Your task to perform on an android device: Go to Wikipedia Image 0: 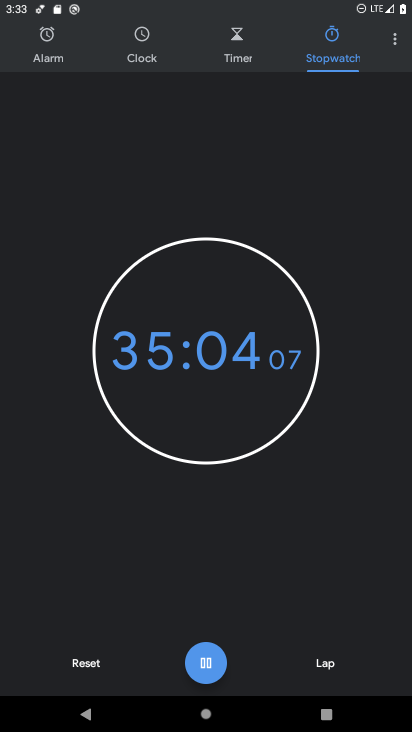
Step 0: press home button
Your task to perform on an android device: Go to Wikipedia Image 1: 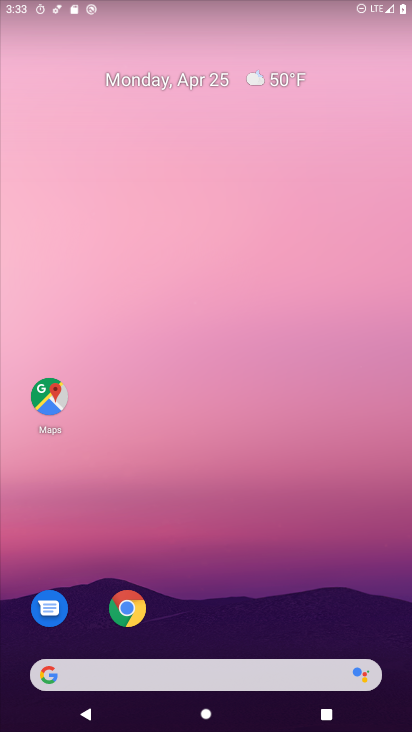
Step 1: click (210, 674)
Your task to perform on an android device: Go to Wikipedia Image 2: 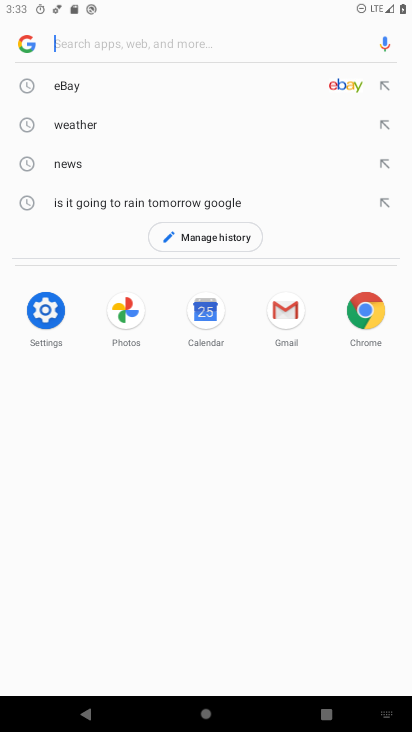
Step 2: type "Wikipedia"
Your task to perform on an android device: Go to Wikipedia Image 3: 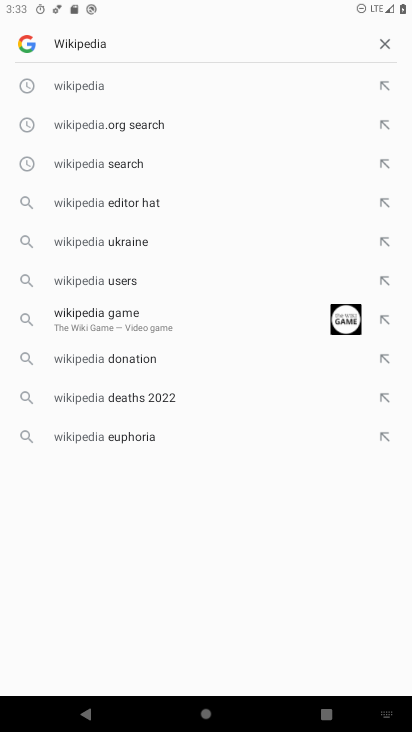
Step 3: click (102, 83)
Your task to perform on an android device: Go to Wikipedia Image 4: 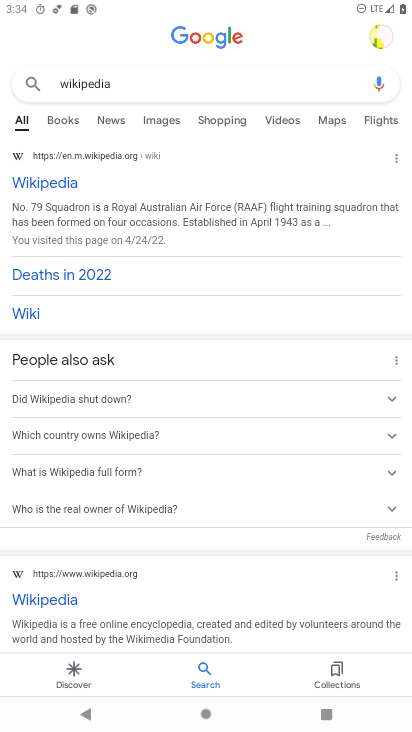
Step 4: click (51, 183)
Your task to perform on an android device: Go to Wikipedia Image 5: 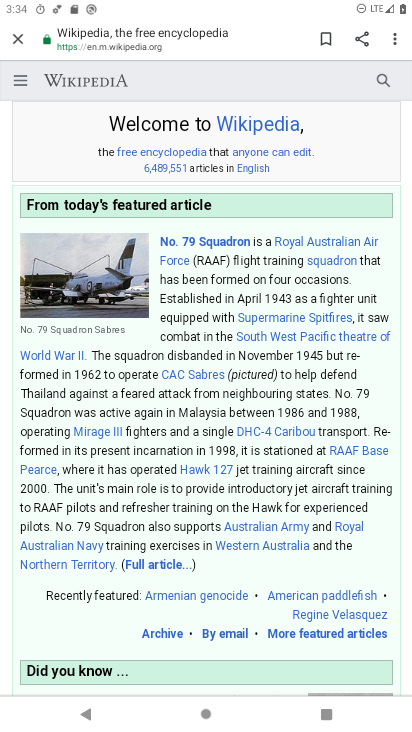
Step 5: task complete